Your task to perform on an android device: Go to battery settings Image 0: 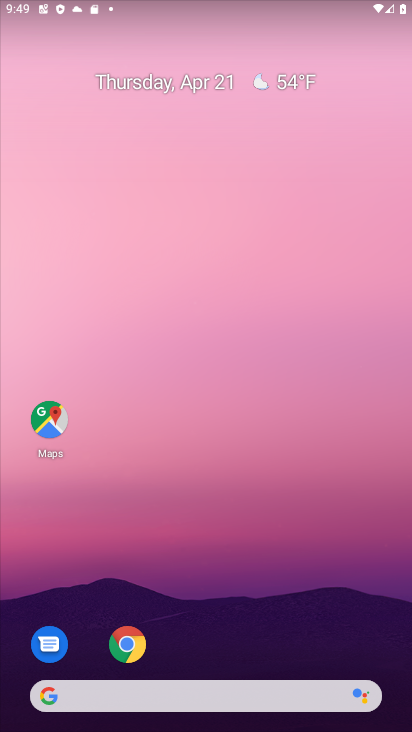
Step 0: drag from (175, 507) to (80, 96)
Your task to perform on an android device: Go to battery settings Image 1: 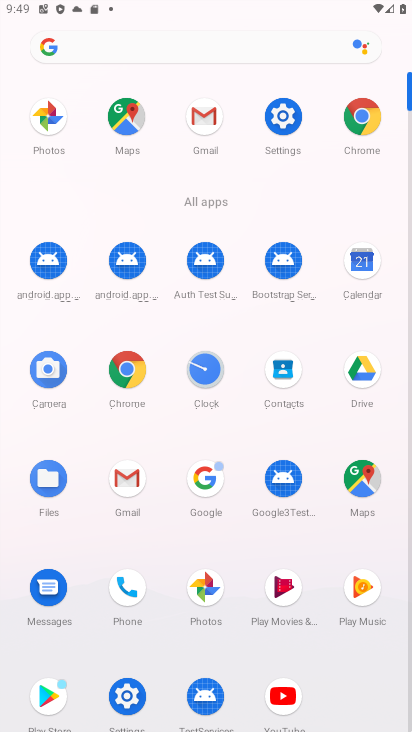
Step 1: click (279, 116)
Your task to perform on an android device: Go to battery settings Image 2: 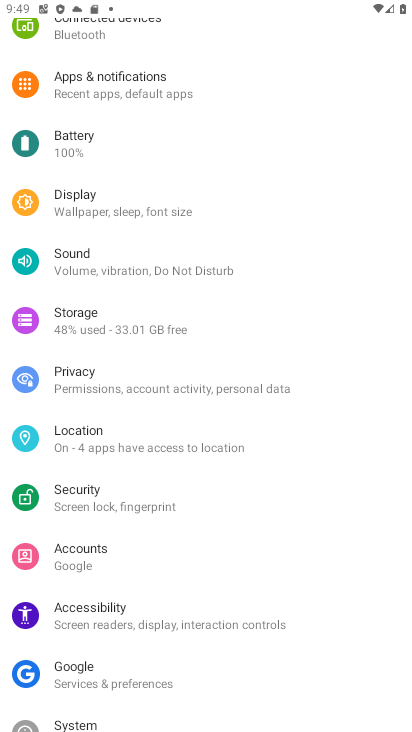
Step 2: click (56, 150)
Your task to perform on an android device: Go to battery settings Image 3: 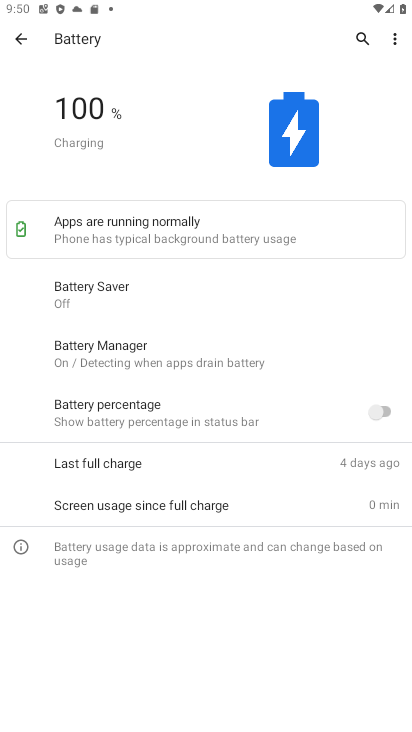
Step 3: task complete